Your task to perform on an android device: star an email in the gmail app Image 0: 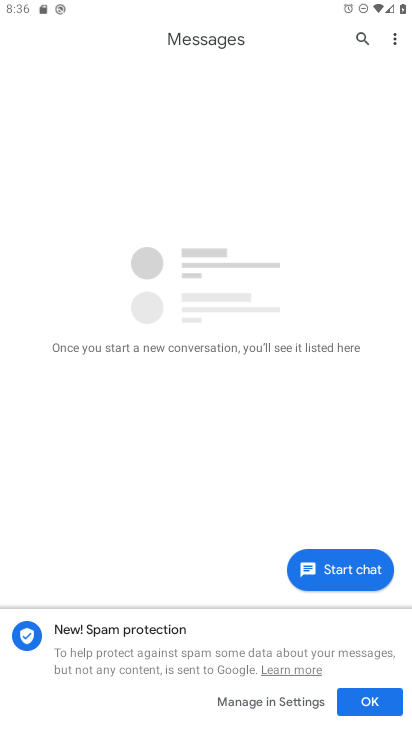
Step 0: press home button
Your task to perform on an android device: star an email in the gmail app Image 1: 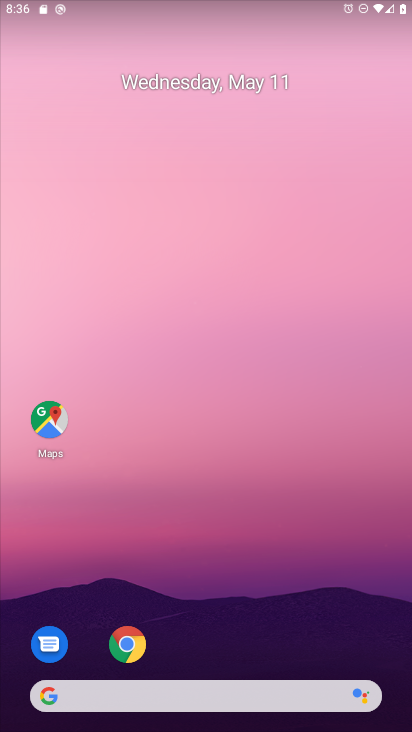
Step 1: drag from (260, 585) to (100, 7)
Your task to perform on an android device: star an email in the gmail app Image 2: 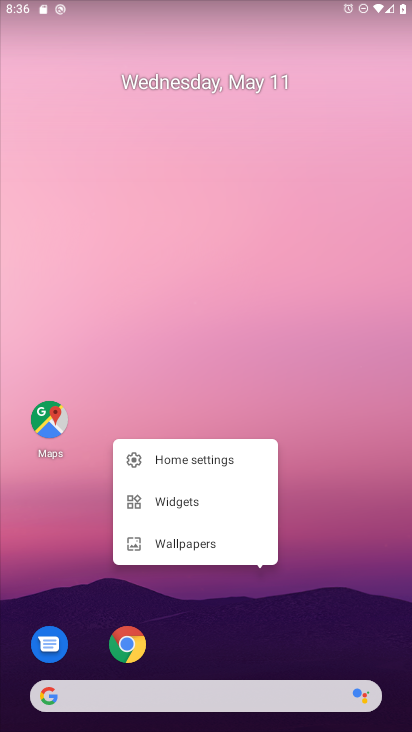
Step 2: click (279, 336)
Your task to perform on an android device: star an email in the gmail app Image 3: 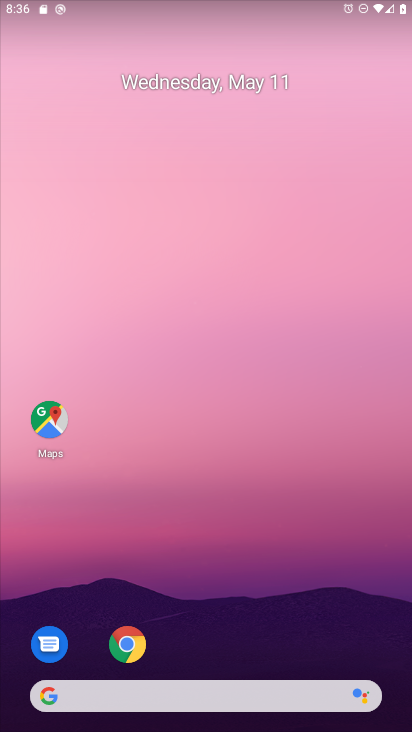
Step 3: drag from (224, 467) to (192, 152)
Your task to perform on an android device: star an email in the gmail app Image 4: 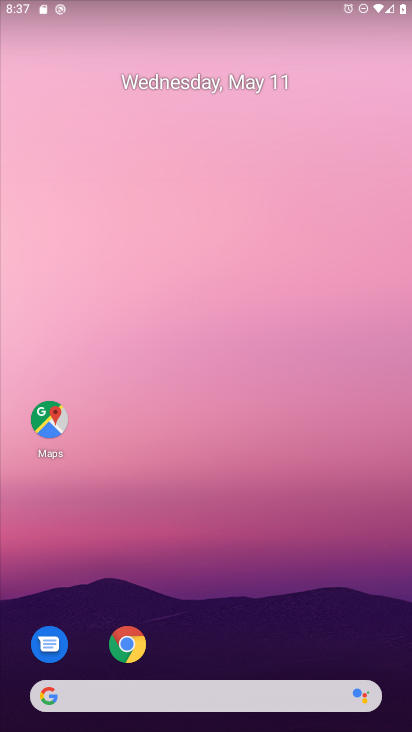
Step 4: drag from (224, 553) to (128, 70)
Your task to perform on an android device: star an email in the gmail app Image 5: 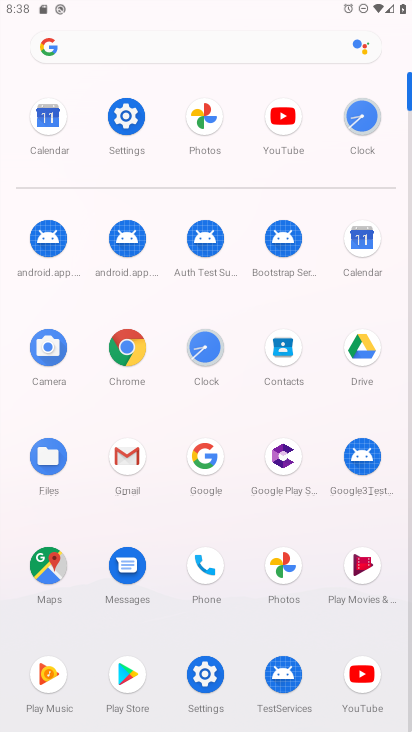
Step 5: click (128, 454)
Your task to perform on an android device: star an email in the gmail app Image 6: 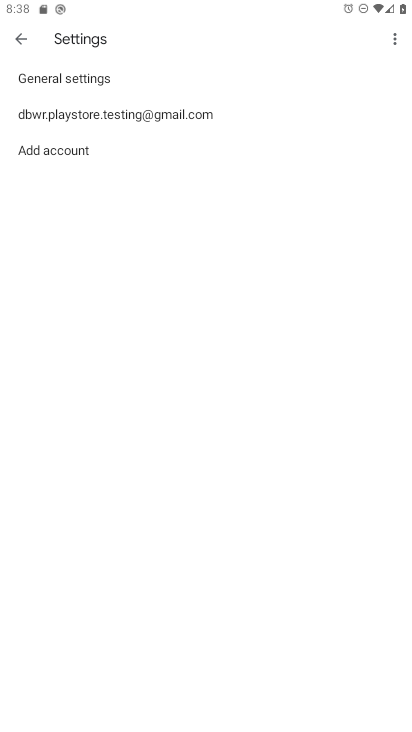
Step 6: click (21, 34)
Your task to perform on an android device: star an email in the gmail app Image 7: 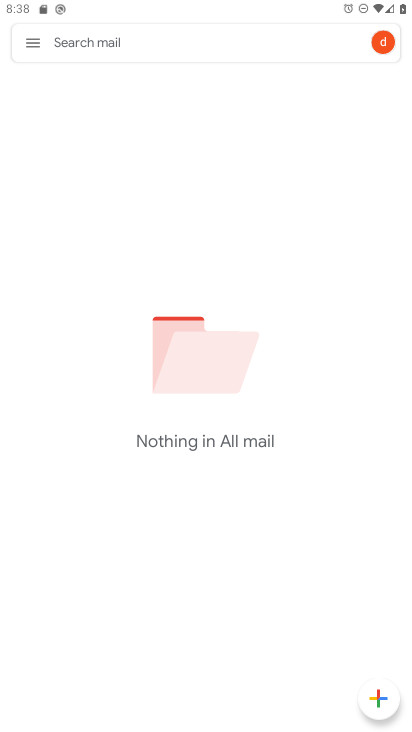
Step 7: task complete